Your task to perform on an android device: Is it going to rain this weekend? Image 0: 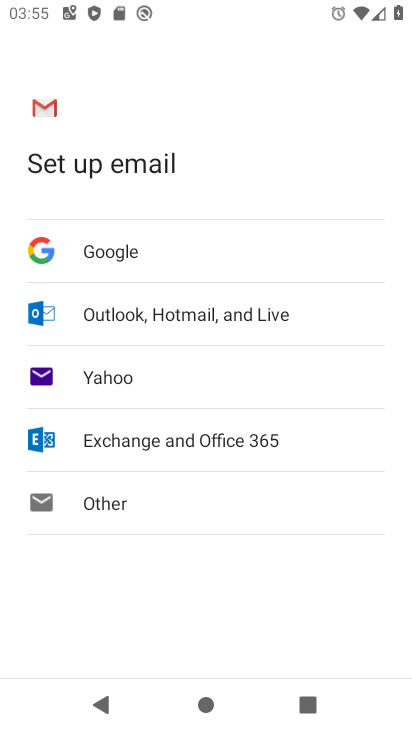
Step 0: press home button
Your task to perform on an android device: Is it going to rain this weekend? Image 1: 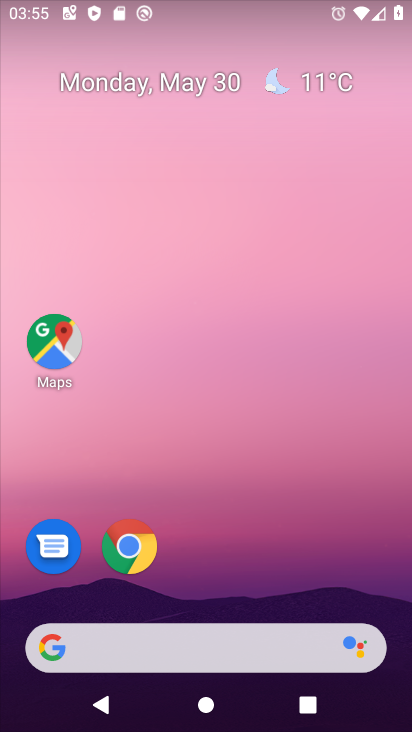
Step 1: drag from (220, 595) to (228, 148)
Your task to perform on an android device: Is it going to rain this weekend? Image 2: 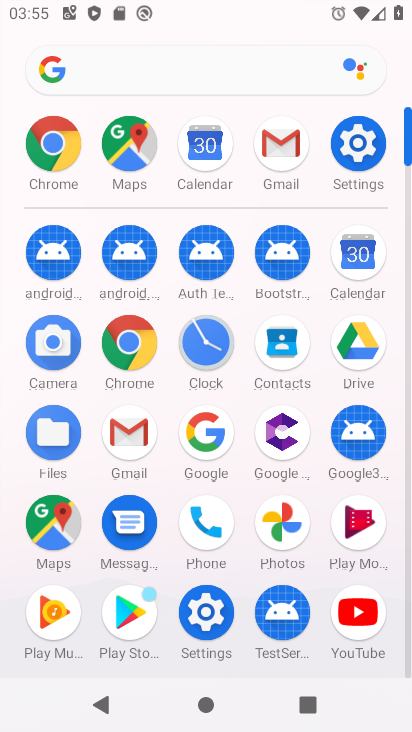
Step 2: press back button
Your task to perform on an android device: Is it going to rain this weekend? Image 3: 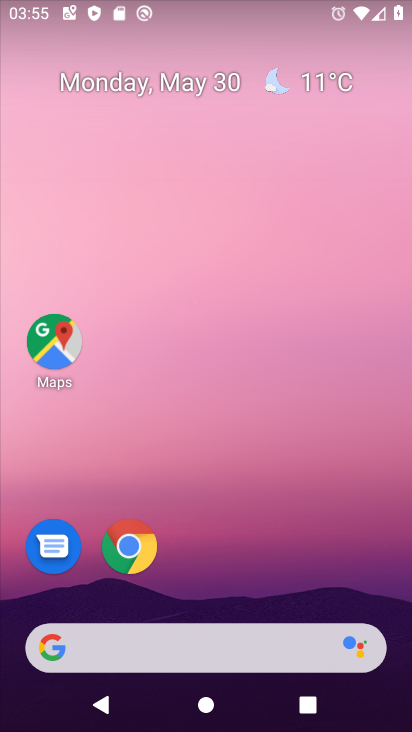
Step 3: click (310, 74)
Your task to perform on an android device: Is it going to rain this weekend? Image 4: 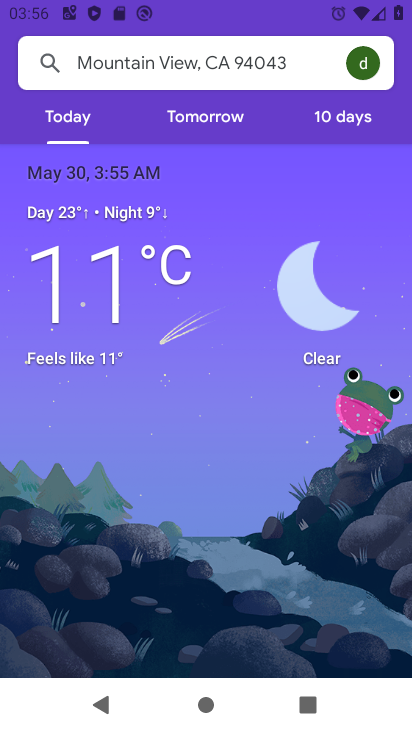
Step 4: drag from (216, 562) to (226, 154)
Your task to perform on an android device: Is it going to rain this weekend? Image 5: 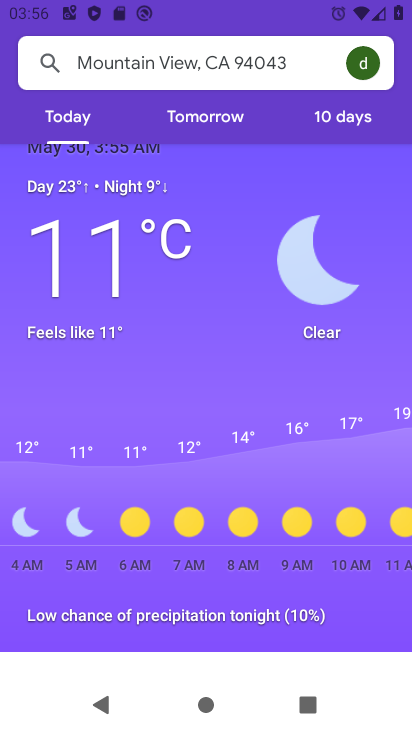
Step 5: click (331, 118)
Your task to perform on an android device: Is it going to rain this weekend? Image 6: 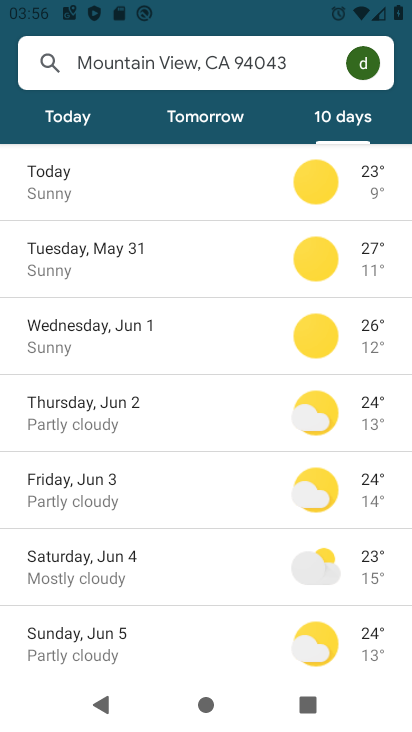
Step 6: task complete